Your task to perform on an android device: delete a single message in the gmail app Image 0: 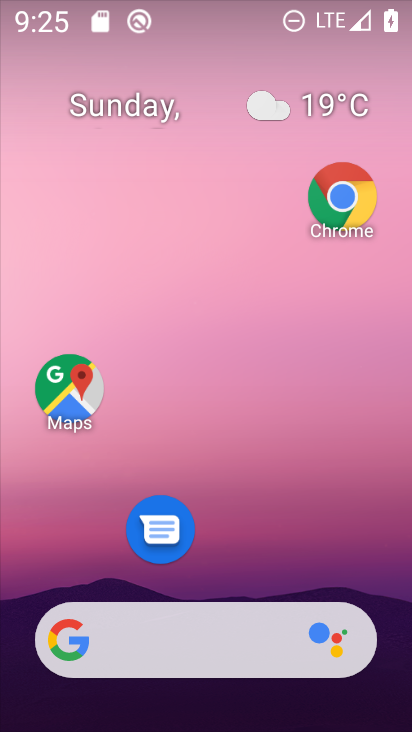
Step 0: press home button
Your task to perform on an android device: delete a single message in the gmail app Image 1: 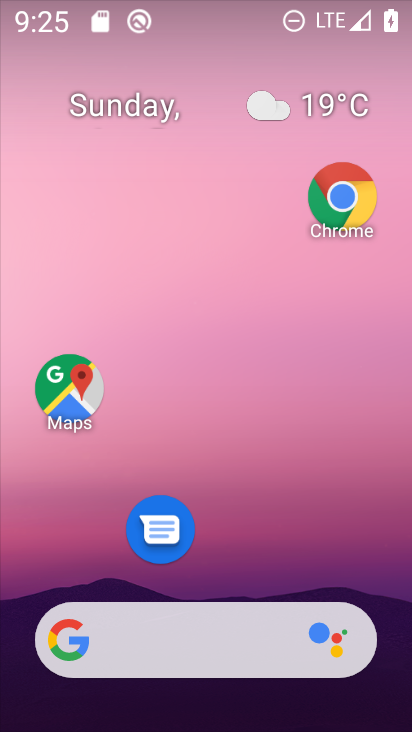
Step 1: press home button
Your task to perform on an android device: delete a single message in the gmail app Image 2: 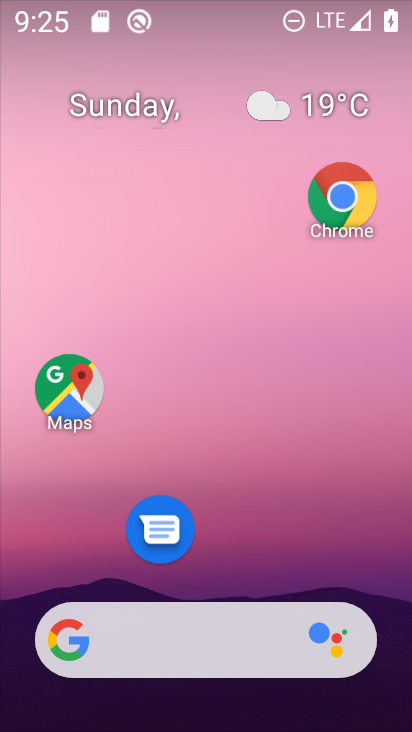
Step 2: drag from (237, 564) to (256, 145)
Your task to perform on an android device: delete a single message in the gmail app Image 3: 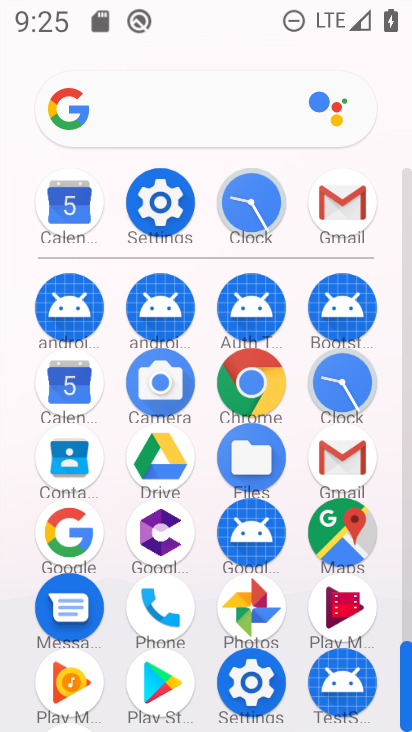
Step 3: click (339, 453)
Your task to perform on an android device: delete a single message in the gmail app Image 4: 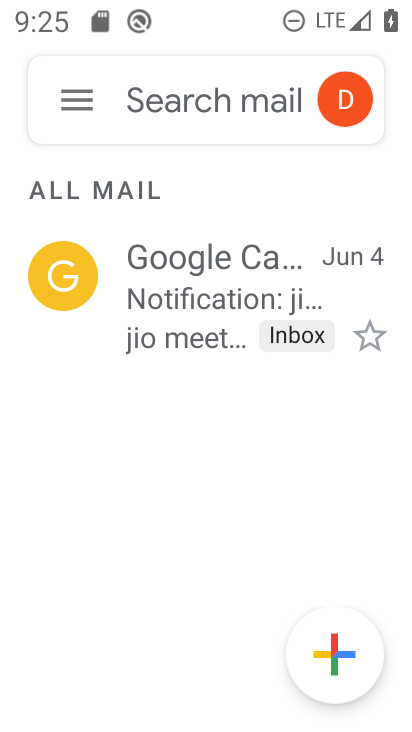
Step 4: click (72, 99)
Your task to perform on an android device: delete a single message in the gmail app Image 5: 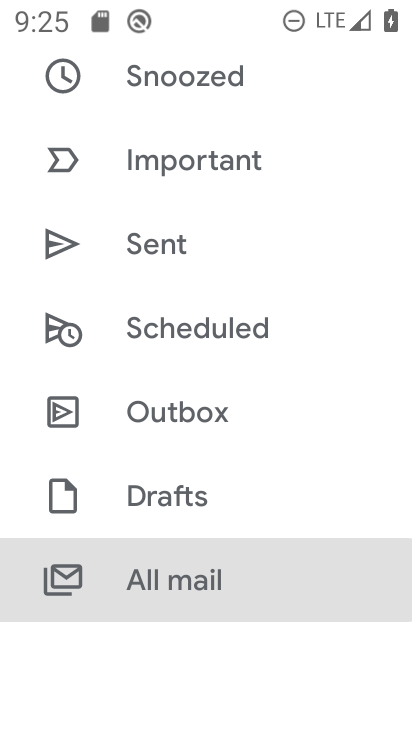
Step 5: click (108, 578)
Your task to perform on an android device: delete a single message in the gmail app Image 6: 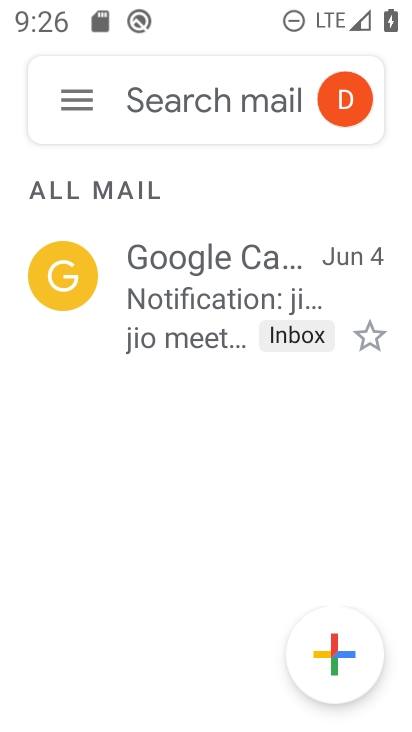
Step 6: click (67, 276)
Your task to perform on an android device: delete a single message in the gmail app Image 7: 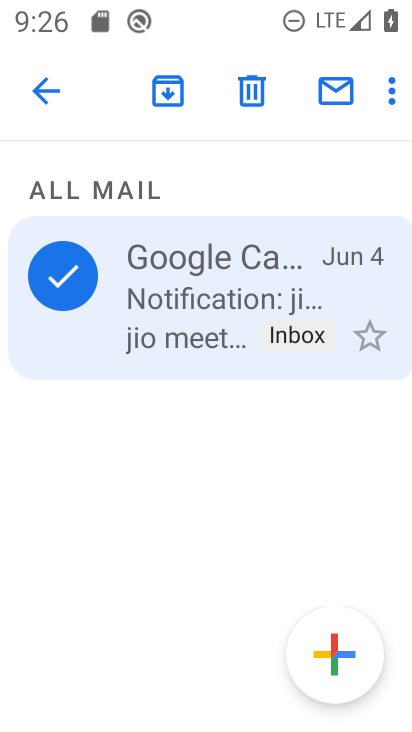
Step 7: click (388, 81)
Your task to perform on an android device: delete a single message in the gmail app Image 8: 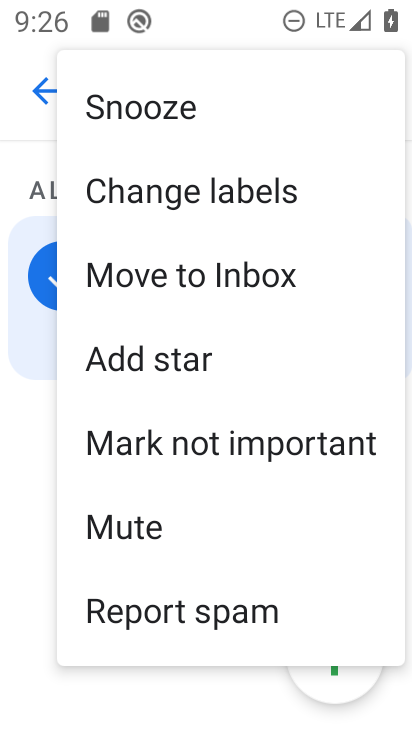
Step 8: click (25, 495)
Your task to perform on an android device: delete a single message in the gmail app Image 9: 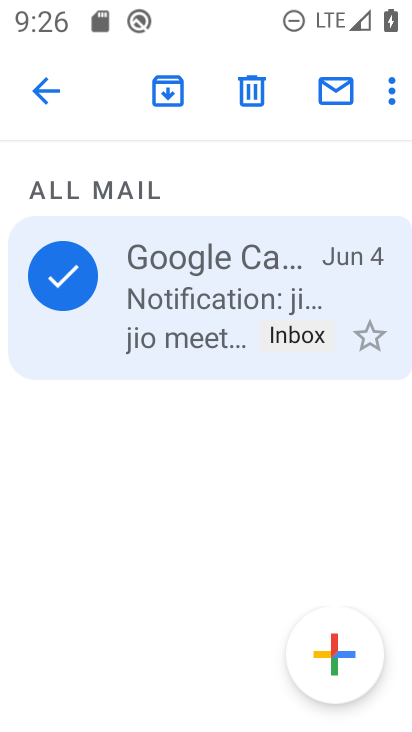
Step 9: click (253, 88)
Your task to perform on an android device: delete a single message in the gmail app Image 10: 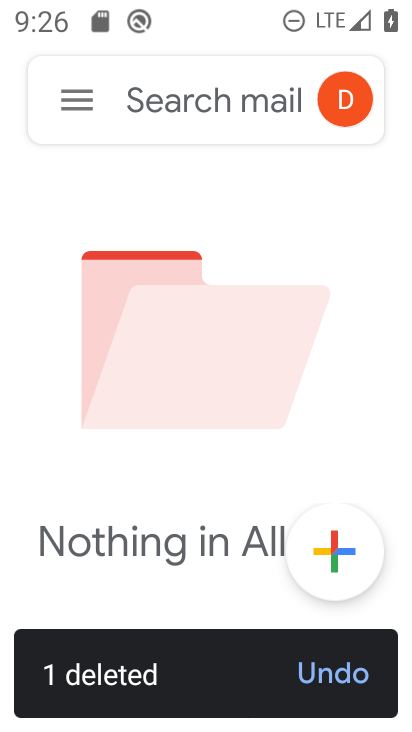
Step 10: task complete